Your task to perform on an android device: Open the stopwatch Image 0: 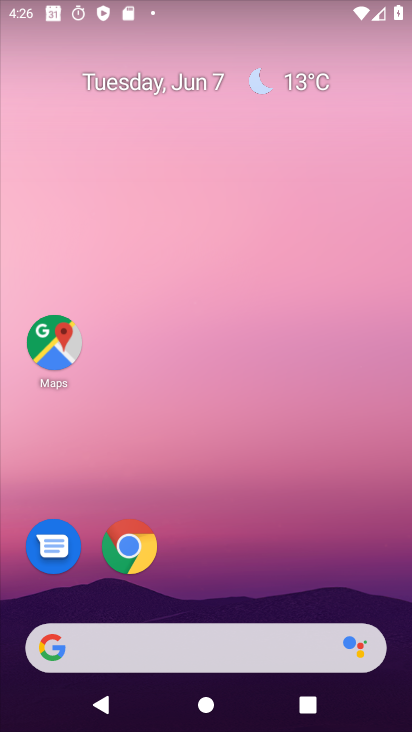
Step 0: drag from (205, 616) to (386, 386)
Your task to perform on an android device: Open the stopwatch Image 1: 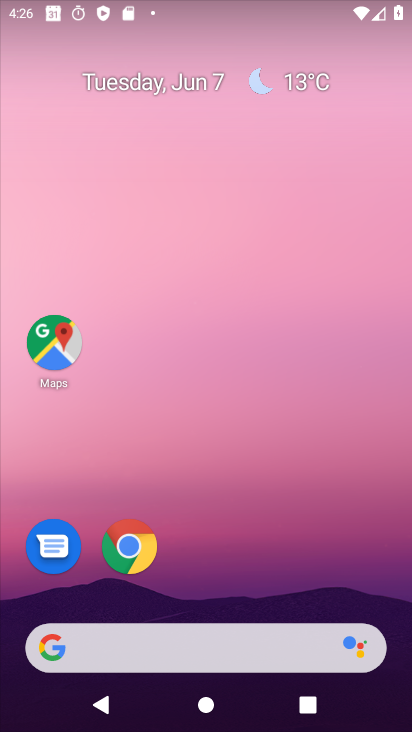
Step 1: drag from (148, 594) to (277, 0)
Your task to perform on an android device: Open the stopwatch Image 2: 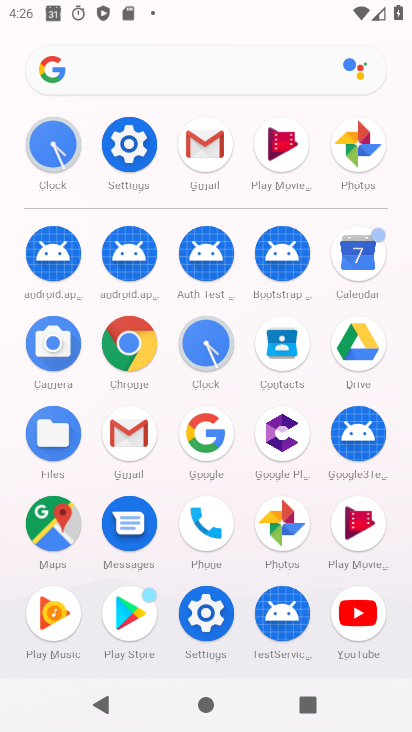
Step 2: click (196, 419)
Your task to perform on an android device: Open the stopwatch Image 3: 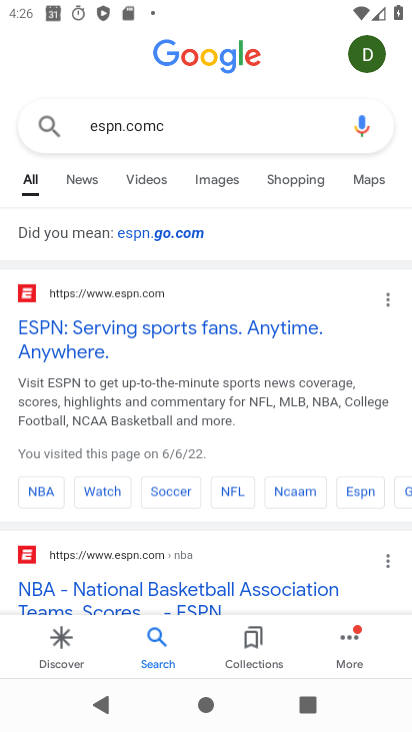
Step 3: press home button
Your task to perform on an android device: Open the stopwatch Image 4: 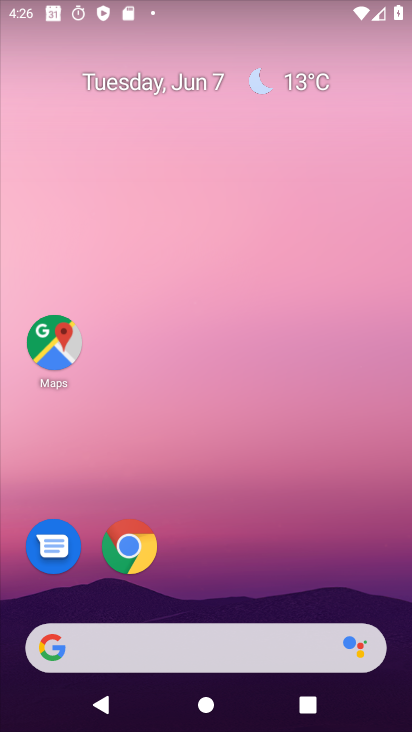
Step 4: drag from (198, 606) to (384, 339)
Your task to perform on an android device: Open the stopwatch Image 5: 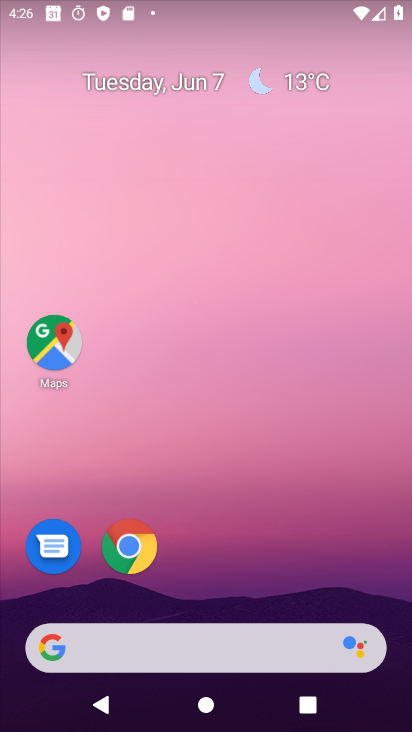
Step 5: drag from (116, 615) to (177, 147)
Your task to perform on an android device: Open the stopwatch Image 6: 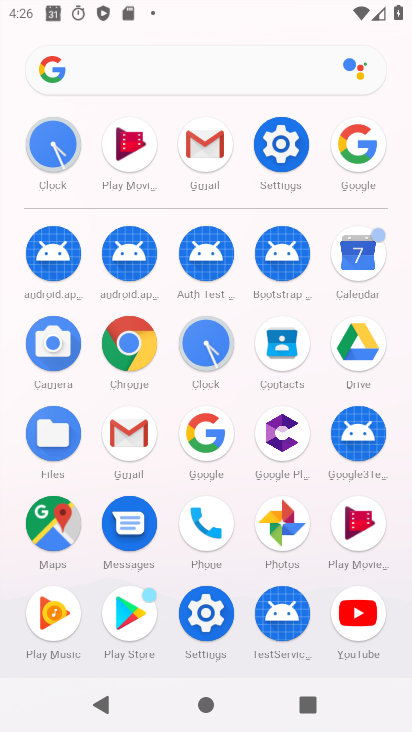
Step 6: click (192, 321)
Your task to perform on an android device: Open the stopwatch Image 7: 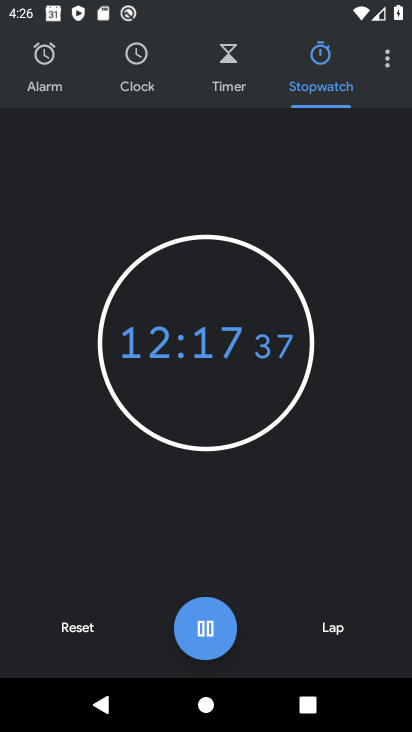
Step 7: task complete